Your task to perform on an android device: toggle translation in the chrome app Image 0: 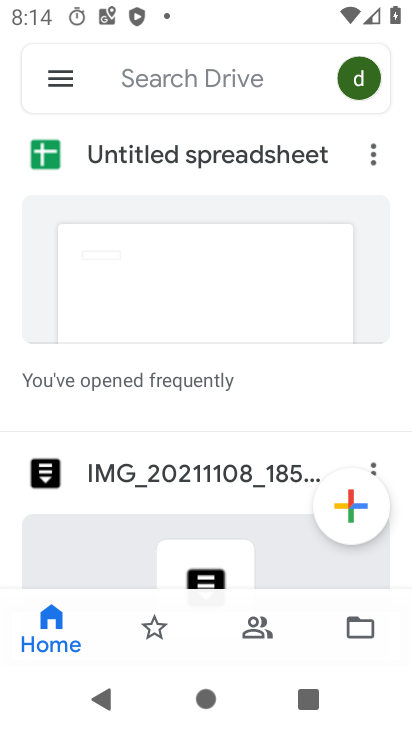
Step 0: press home button
Your task to perform on an android device: toggle translation in the chrome app Image 1: 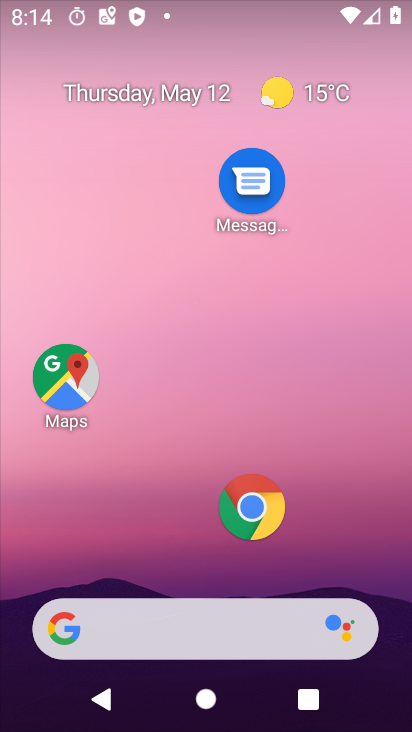
Step 1: drag from (155, 563) to (175, 37)
Your task to perform on an android device: toggle translation in the chrome app Image 2: 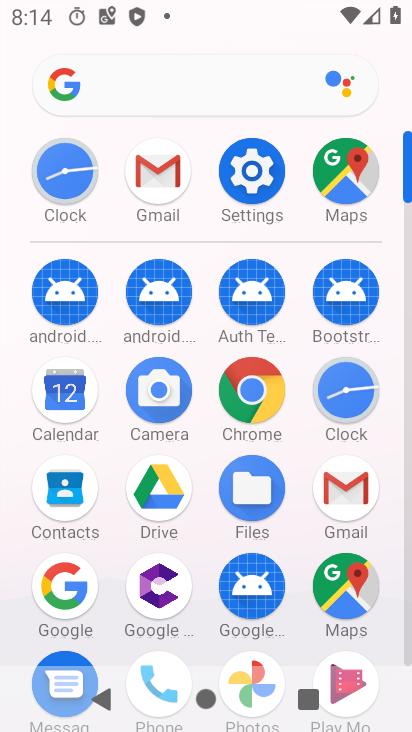
Step 2: click (247, 391)
Your task to perform on an android device: toggle translation in the chrome app Image 3: 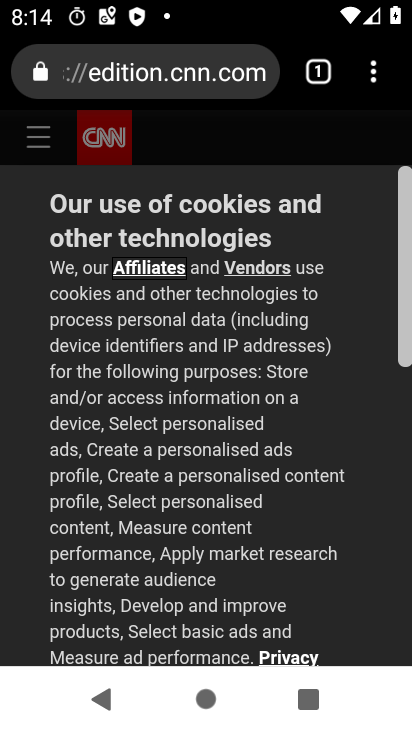
Step 3: click (368, 72)
Your task to perform on an android device: toggle translation in the chrome app Image 4: 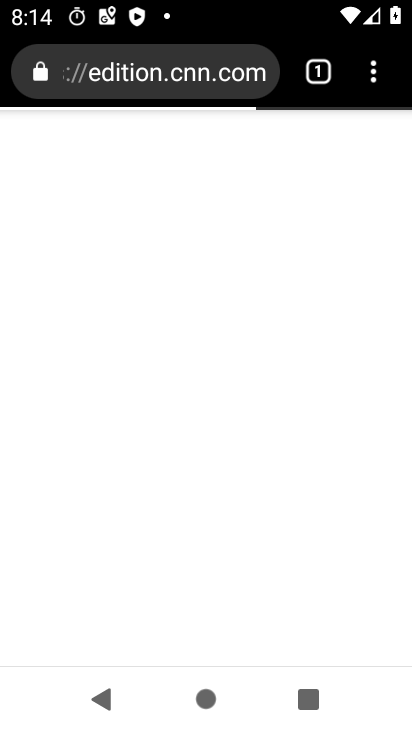
Step 4: click (368, 72)
Your task to perform on an android device: toggle translation in the chrome app Image 5: 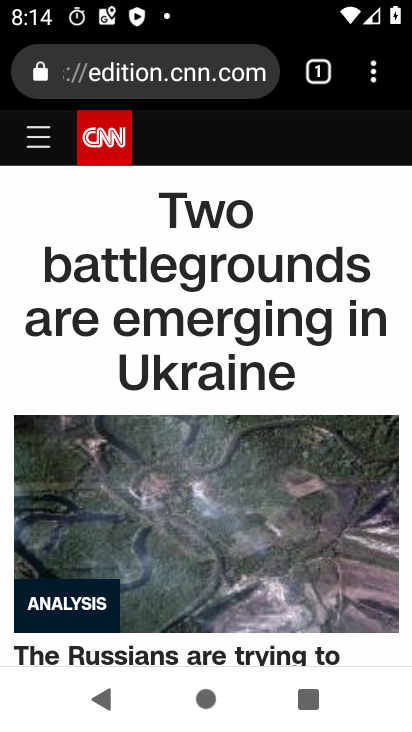
Step 5: click (368, 72)
Your task to perform on an android device: toggle translation in the chrome app Image 6: 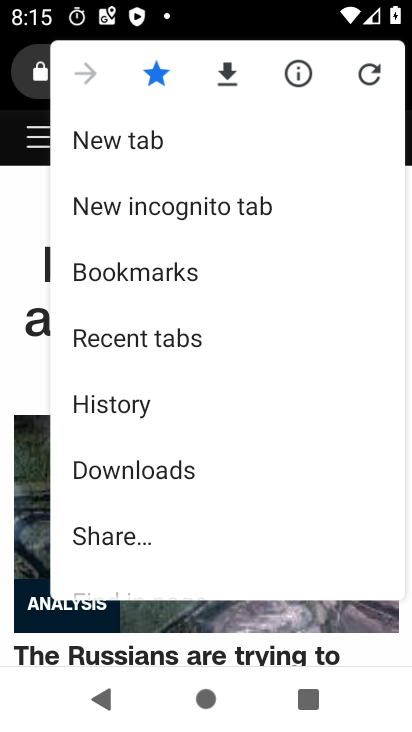
Step 6: drag from (153, 517) to (227, 277)
Your task to perform on an android device: toggle translation in the chrome app Image 7: 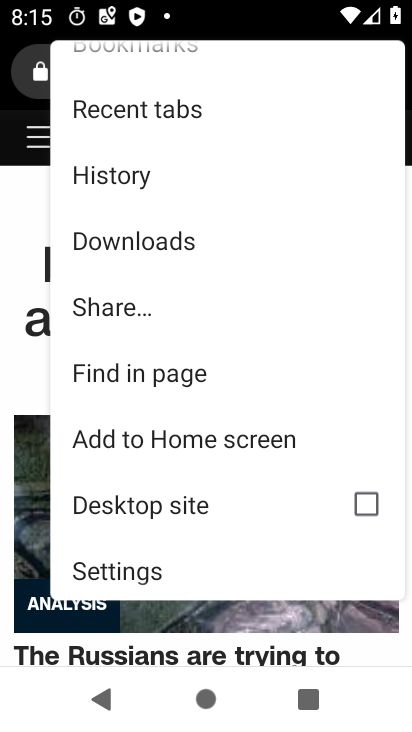
Step 7: click (152, 561)
Your task to perform on an android device: toggle translation in the chrome app Image 8: 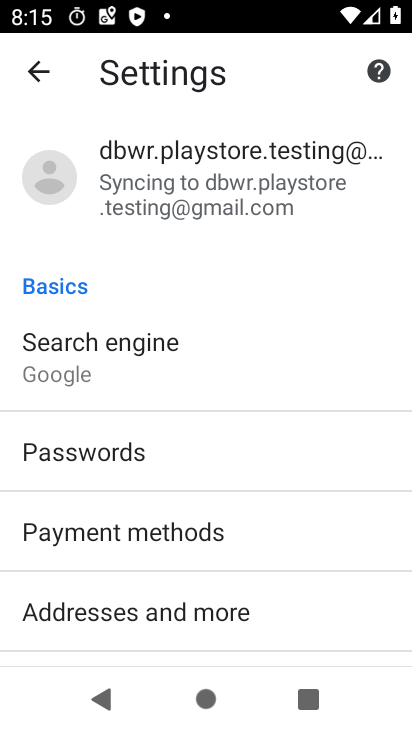
Step 8: drag from (114, 560) to (166, 404)
Your task to perform on an android device: toggle translation in the chrome app Image 9: 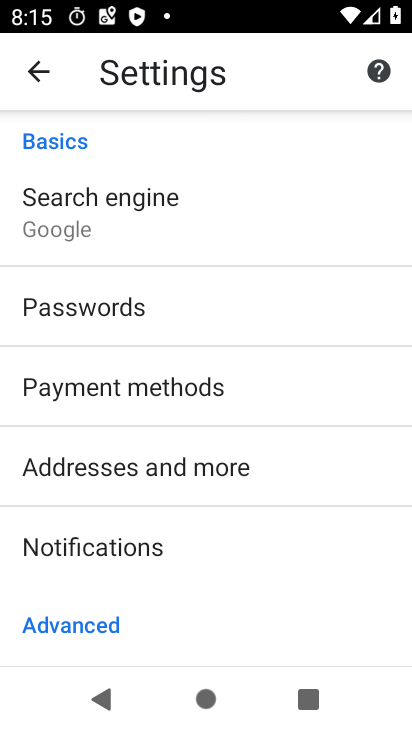
Step 9: drag from (153, 612) to (201, 332)
Your task to perform on an android device: toggle translation in the chrome app Image 10: 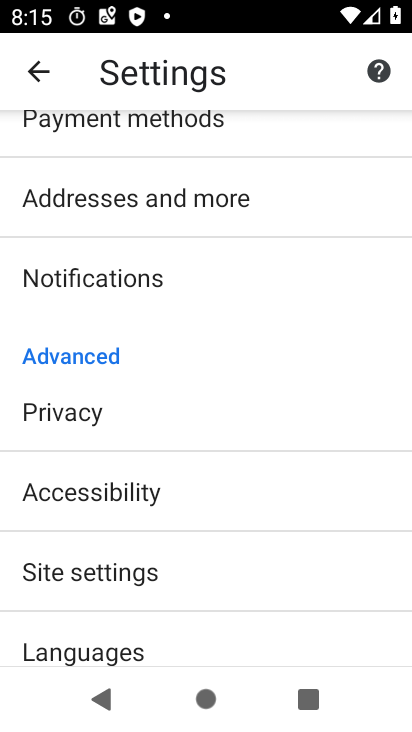
Step 10: drag from (169, 627) to (189, 485)
Your task to perform on an android device: toggle translation in the chrome app Image 11: 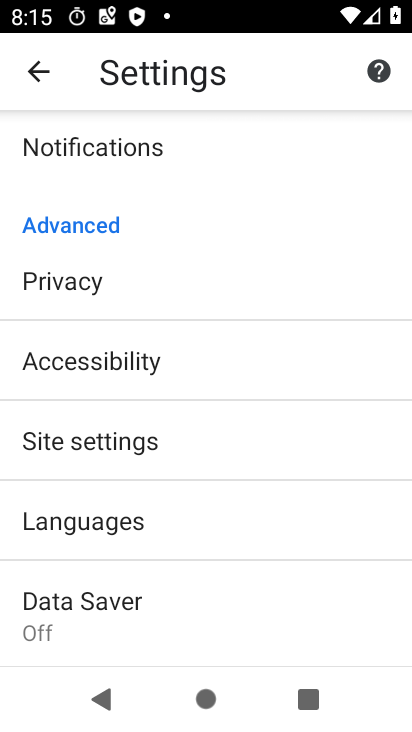
Step 11: click (174, 505)
Your task to perform on an android device: toggle translation in the chrome app Image 12: 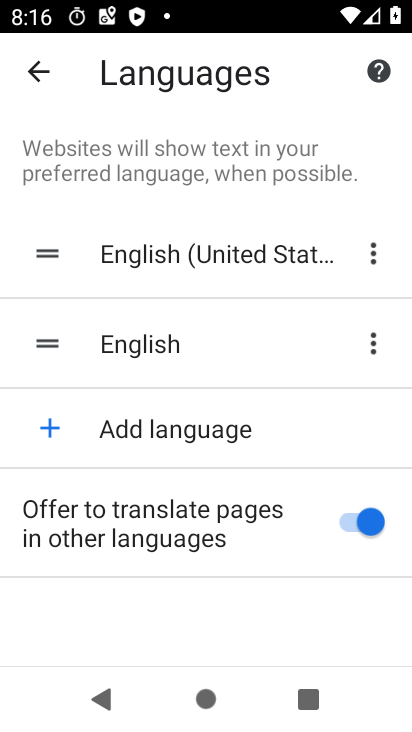
Step 12: click (360, 524)
Your task to perform on an android device: toggle translation in the chrome app Image 13: 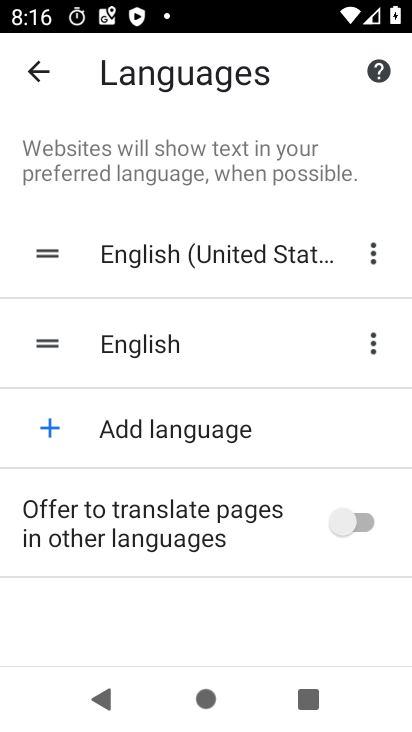
Step 13: task complete